Your task to perform on an android device: toggle notification dots Image 0: 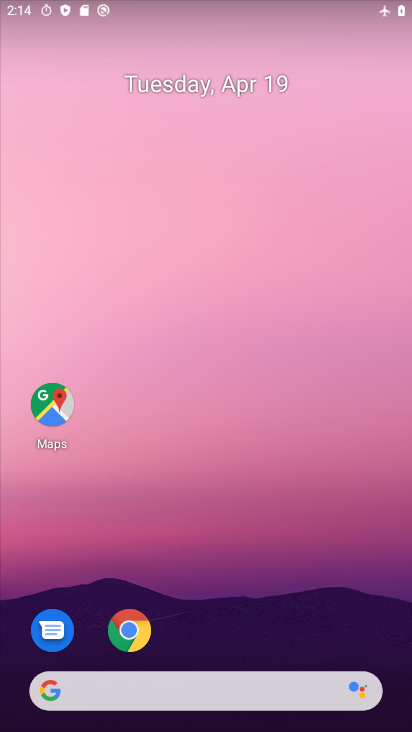
Step 0: drag from (259, 628) to (293, 93)
Your task to perform on an android device: toggle notification dots Image 1: 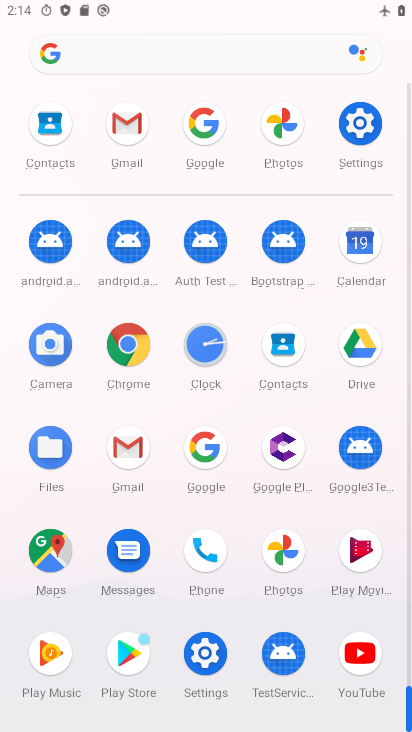
Step 1: click (360, 133)
Your task to perform on an android device: toggle notification dots Image 2: 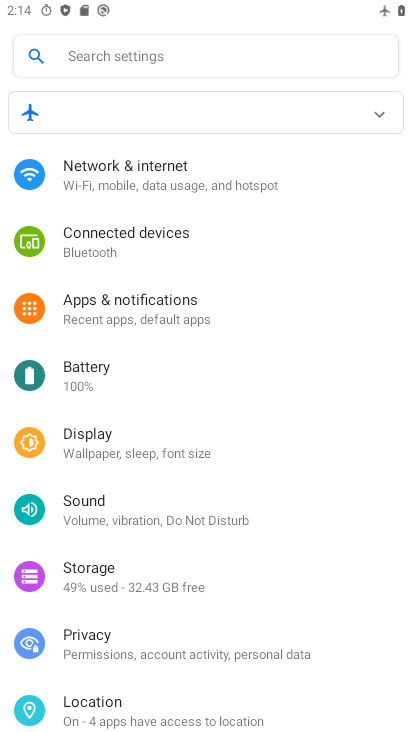
Step 2: click (169, 297)
Your task to perform on an android device: toggle notification dots Image 3: 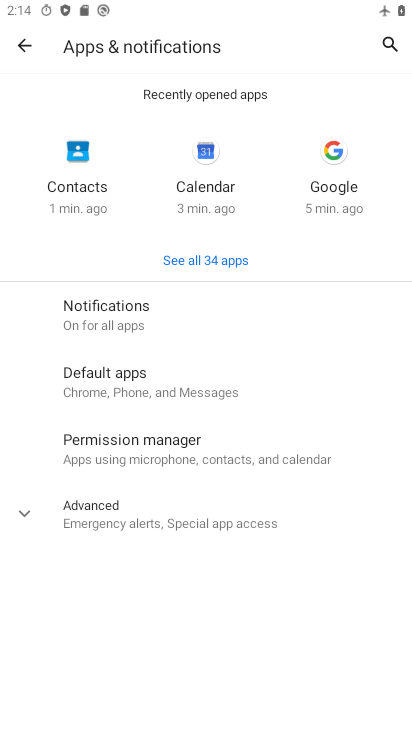
Step 3: click (154, 312)
Your task to perform on an android device: toggle notification dots Image 4: 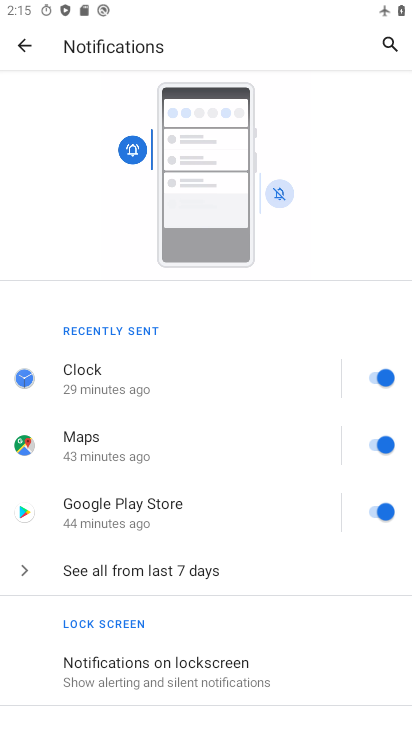
Step 4: drag from (296, 653) to (290, 400)
Your task to perform on an android device: toggle notification dots Image 5: 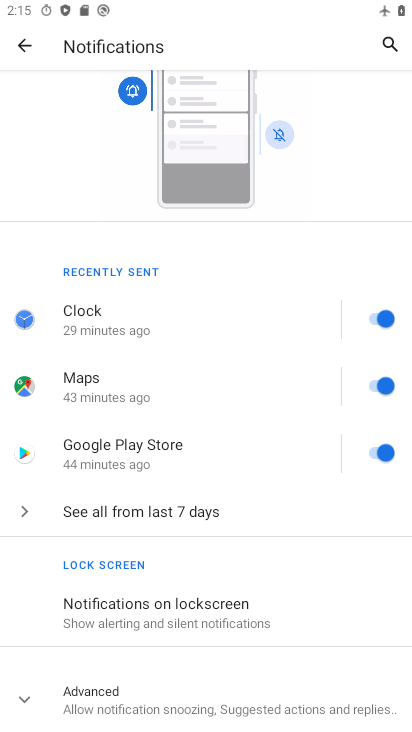
Step 5: click (233, 702)
Your task to perform on an android device: toggle notification dots Image 6: 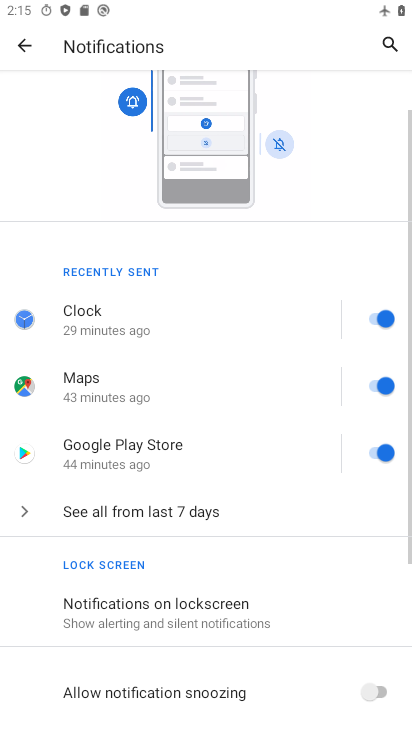
Step 6: drag from (231, 483) to (229, 306)
Your task to perform on an android device: toggle notification dots Image 7: 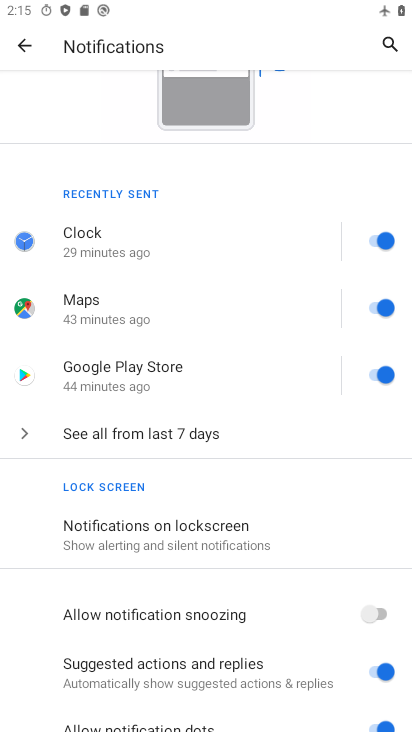
Step 7: drag from (263, 644) to (262, 319)
Your task to perform on an android device: toggle notification dots Image 8: 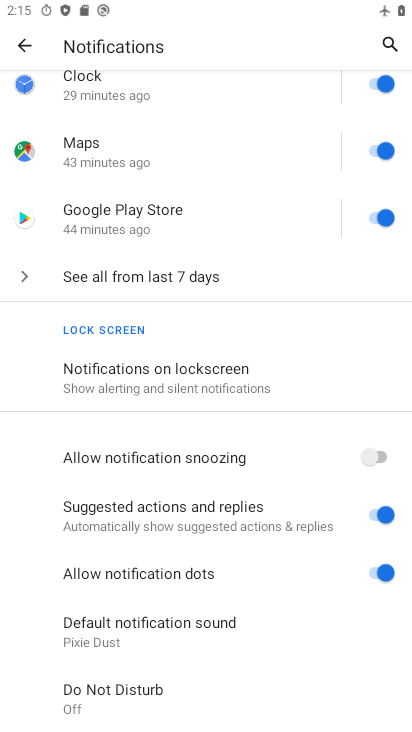
Step 8: click (376, 569)
Your task to perform on an android device: toggle notification dots Image 9: 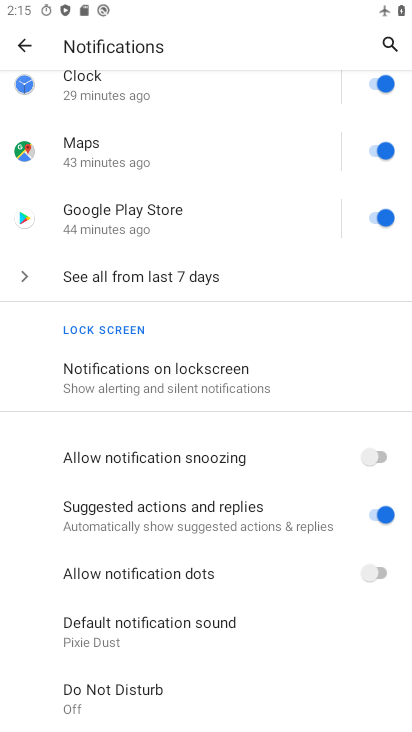
Step 9: task complete